Your task to perform on an android device: Search for seafood restaurants on Google Maps Image 0: 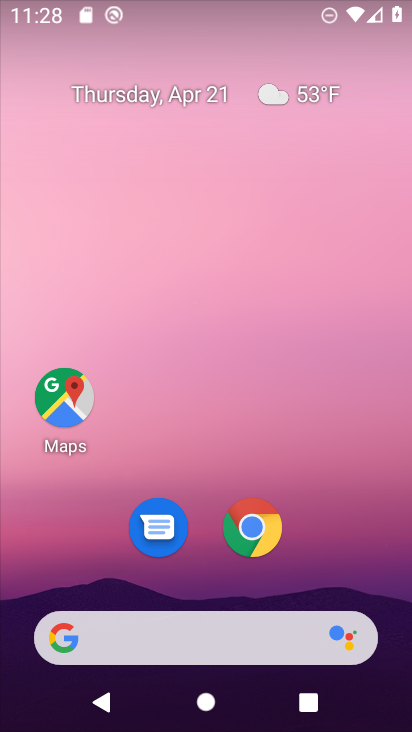
Step 0: drag from (365, 563) to (363, 207)
Your task to perform on an android device: Search for seafood restaurants on Google Maps Image 1: 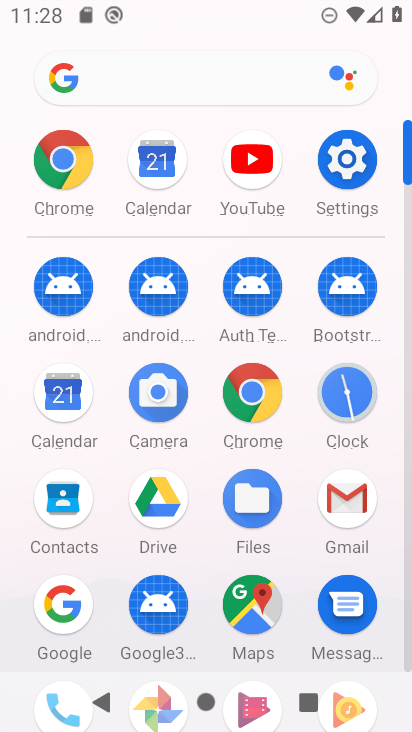
Step 1: drag from (395, 542) to (397, 358)
Your task to perform on an android device: Search for seafood restaurants on Google Maps Image 2: 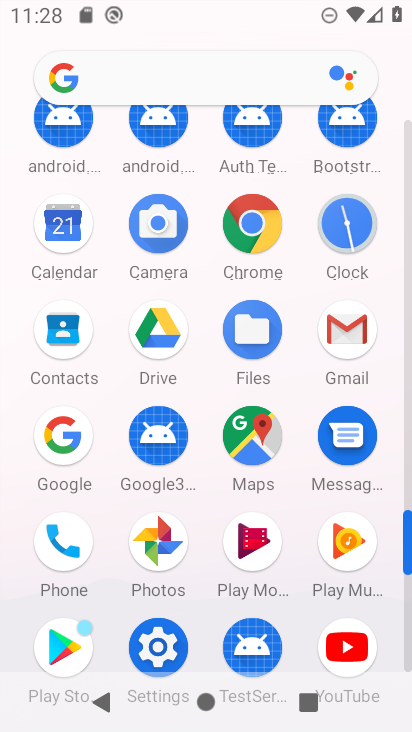
Step 2: click (253, 448)
Your task to perform on an android device: Search for seafood restaurants on Google Maps Image 3: 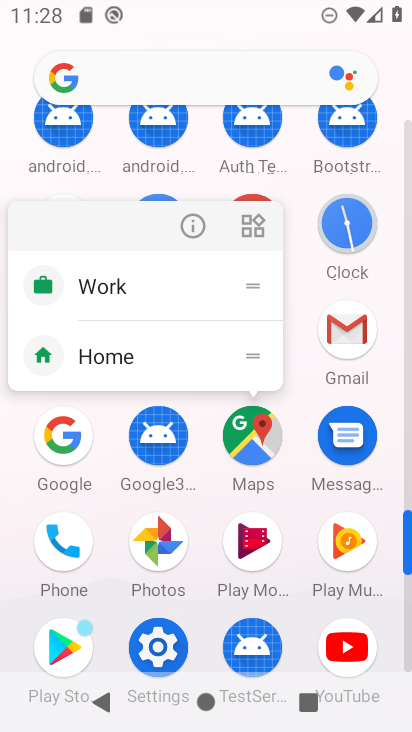
Step 3: click (265, 426)
Your task to perform on an android device: Search for seafood restaurants on Google Maps Image 4: 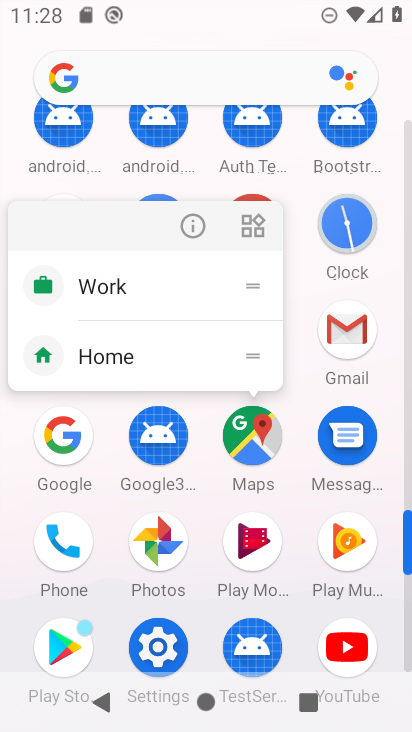
Step 4: click (265, 426)
Your task to perform on an android device: Search for seafood restaurants on Google Maps Image 5: 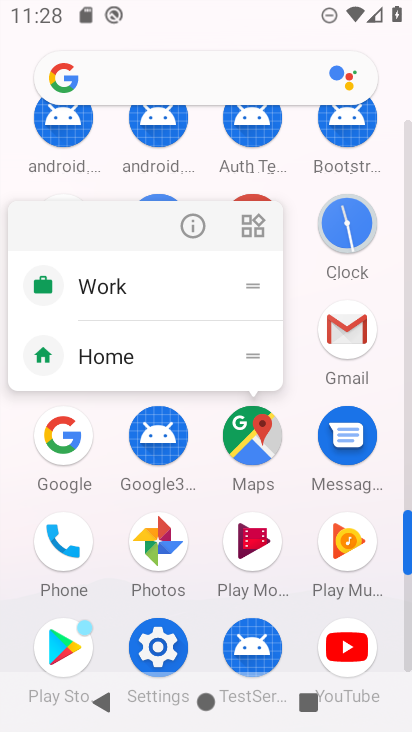
Step 5: click (264, 426)
Your task to perform on an android device: Search for seafood restaurants on Google Maps Image 6: 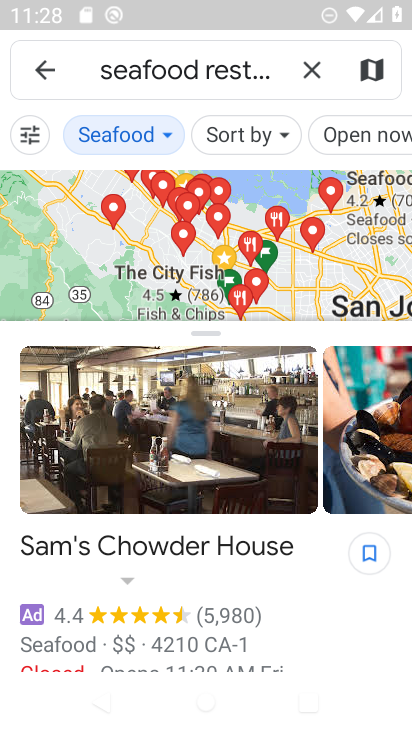
Step 6: task complete